Your task to perform on an android device: change the clock style Image 0: 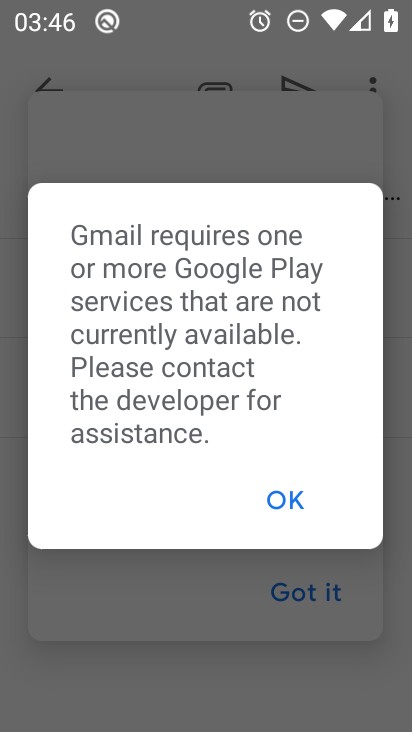
Step 0: press home button
Your task to perform on an android device: change the clock style Image 1: 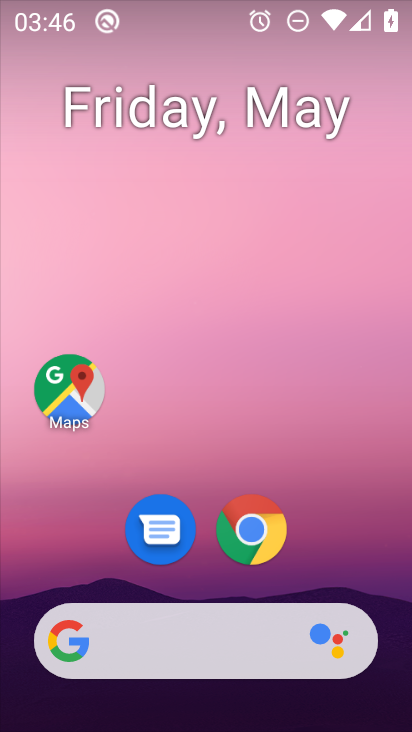
Step 1: drag from (388, 497) to (380, 260)
Your task to perform on an android device: change the clock style Image 2: 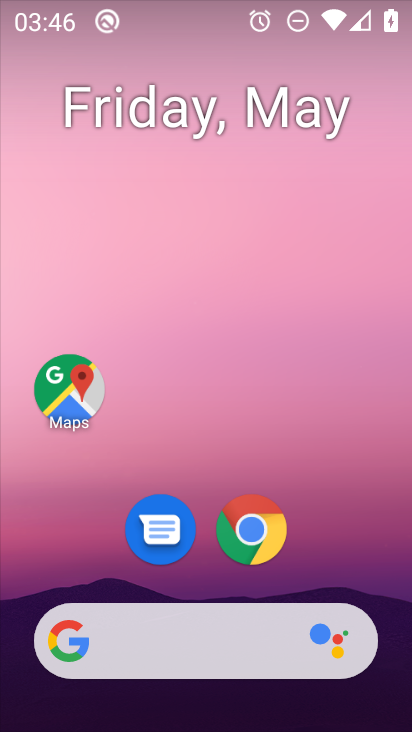
Step 2: drag from (400, 710) to (368, 349)
Your task to perform on an android device: change the clock style Image 3: 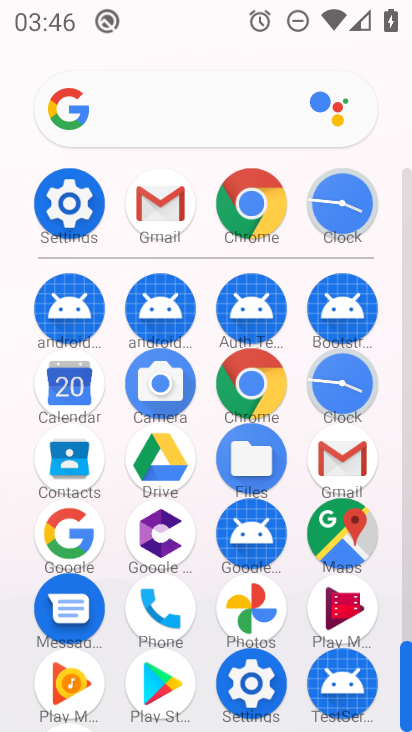
Step 3: click (340, 376)
Your task to perform on an android device: change the clock style Image 4: 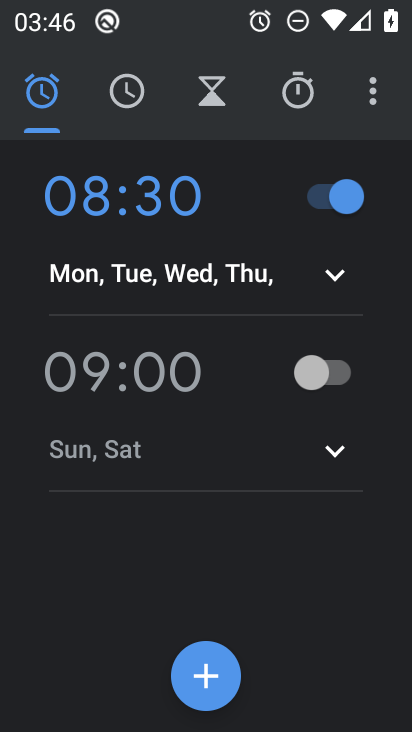
Step 4: click (370, 88)
Your task to perform on an android device: change the clock style Image 5: 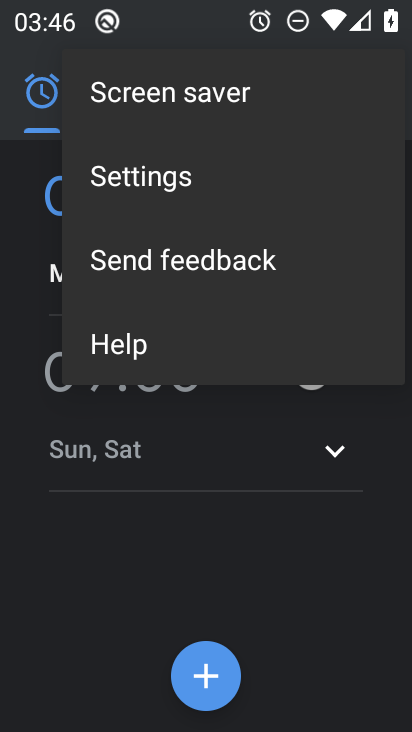
Step 5: click (156, 169)
Your task to perform on an android device: change the clock style Image 6: 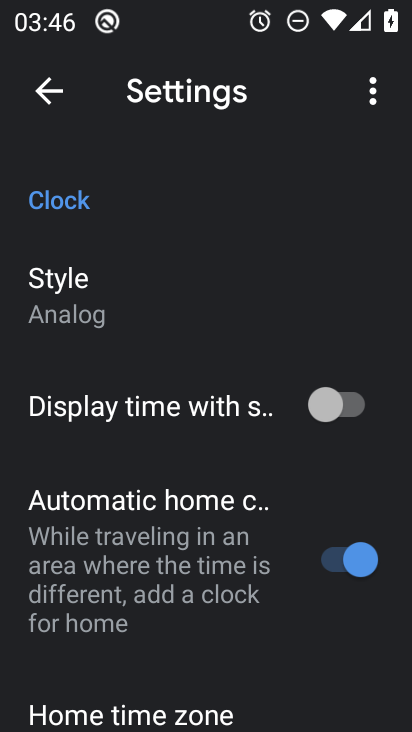
Step 6: click (84, 301)
Your task to perform on an android device: change the clock style Image 7: 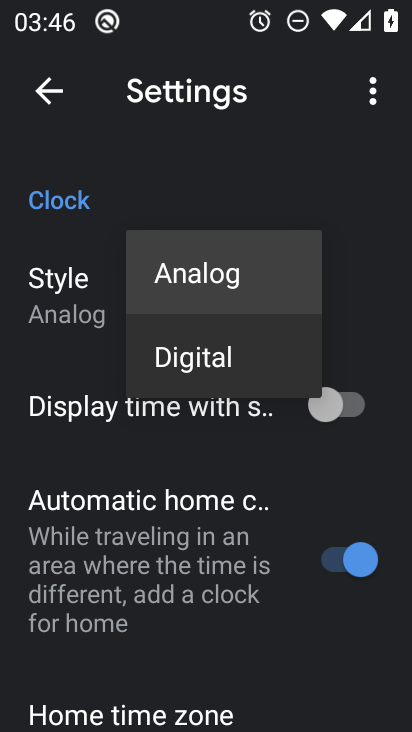
Step 7: click (211, 356)
Your task to perform on an android device: change the clock style Image 8: 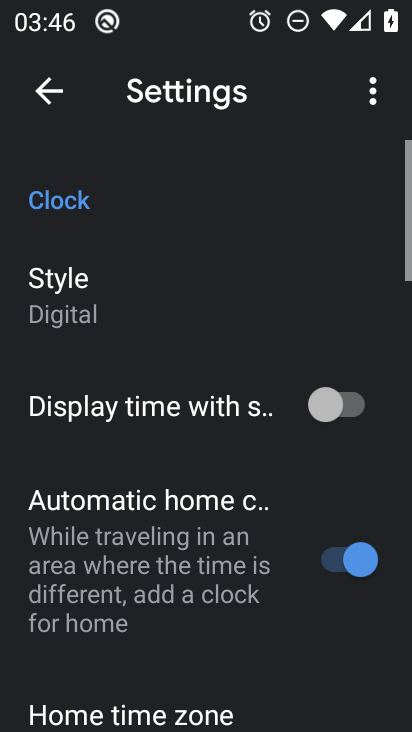
Step 8: task complete